Your task to perform on an android device: turn on priority inbox in the gmail app Image 0: 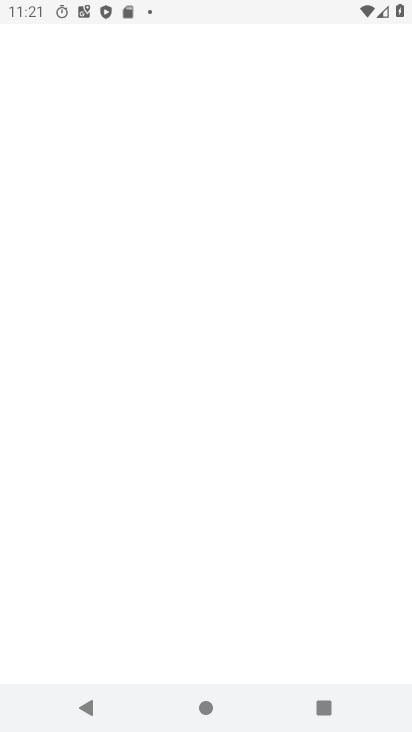
Step 0: drag from (268, 593) to (306, 149)
Your task to perform on an android device: turn on priority inbox in the gmail app Image 1: 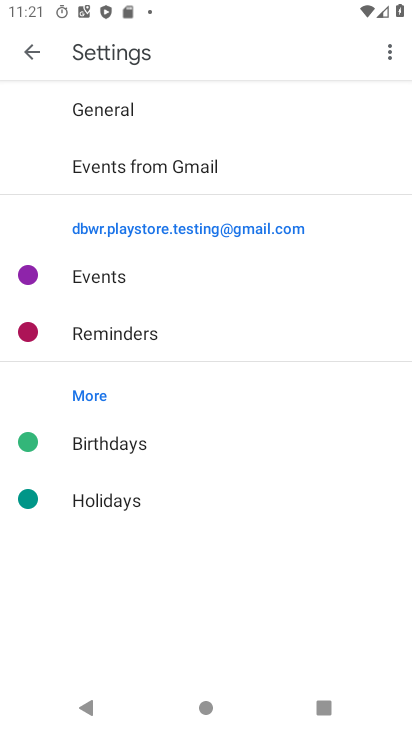
Step 1: press home button
Your task to perform on an android device: turn on priority inbox in the gmail app Image 2: 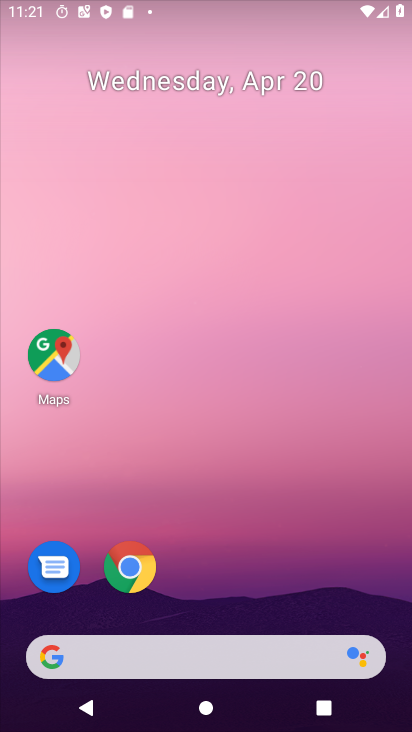
Step 2: drag from (213, 579) to (231, 176)
Your task to perform on an android device: turn on priority inbox in the gmail app Image 3: 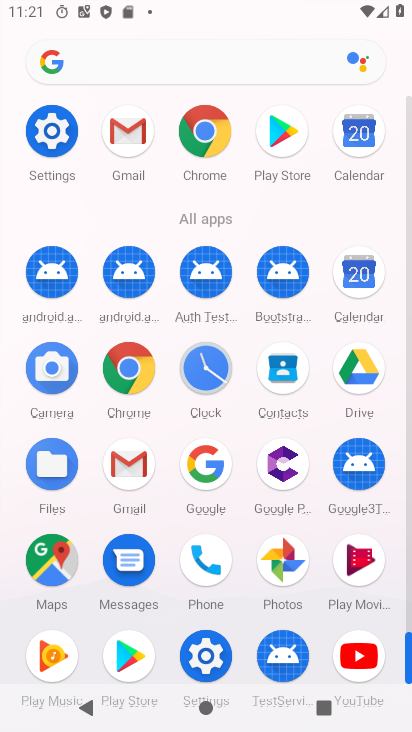
Step 3: click (138, 477)
Your task to perform on an android device: turn on priority inbox in the gmail app Image 4: 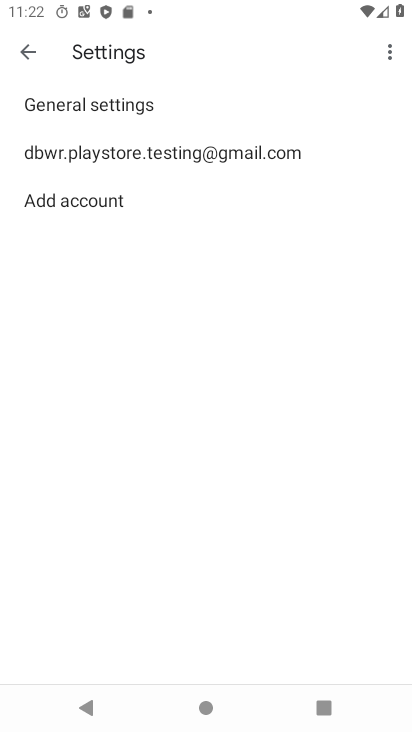
Step 4: click (237, 156)
Your task to perform on an android device: turn on priority inbox in the gmail app Image 5: 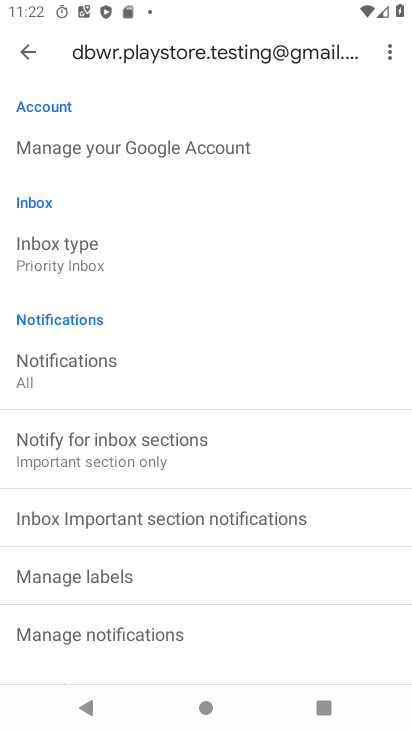
Step 5: task complete